Your task to perform on an android device: turn off wifi Image 0: 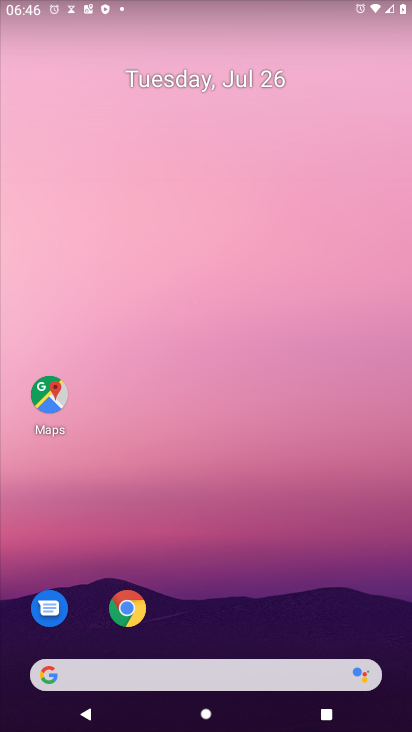
Step 0: press home button
Your task to perform on an android device: turn off wifi Image 1: 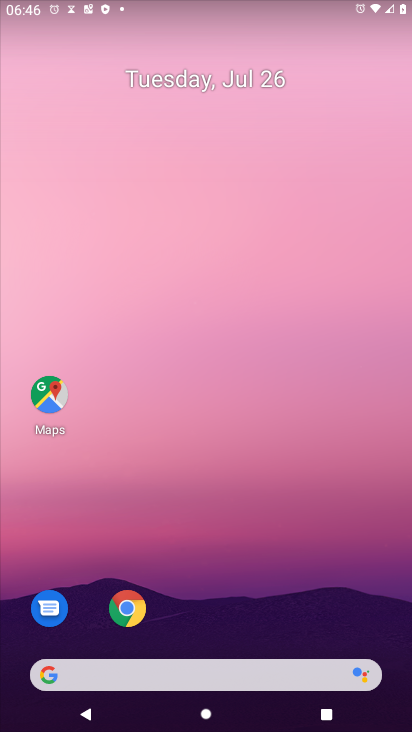
Step 1: drag from (219, 2) to (242, 612)
Your task to perform on an android device: turn off wifi Image 2: 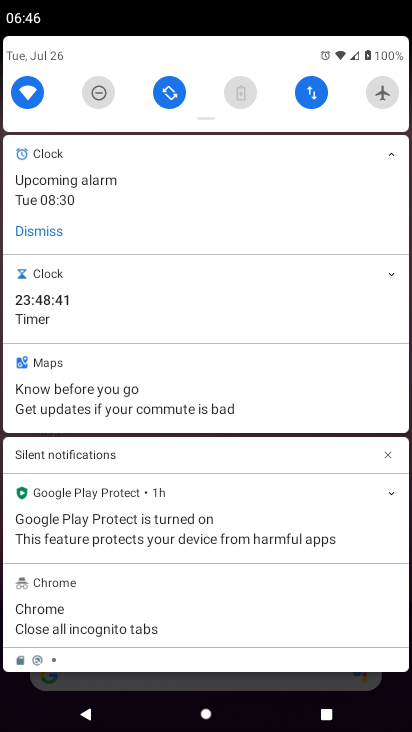
Step 2: click (35, 93)
Your task to perform on an android device: turn off wifi Image 3: 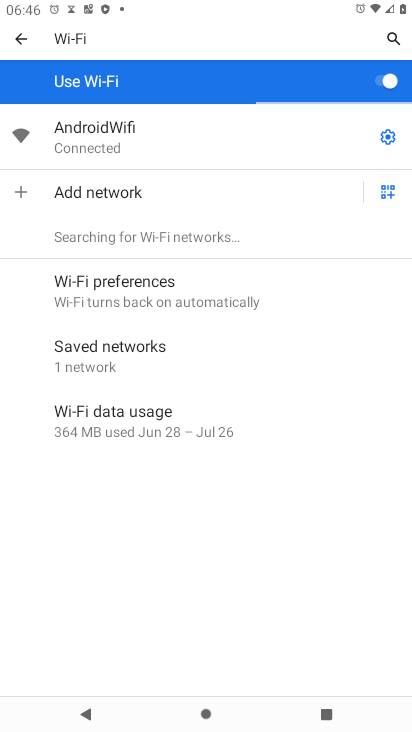
Step 3: click (389, 81)
Your task to perform on an android device: turn off wifi Image 4: 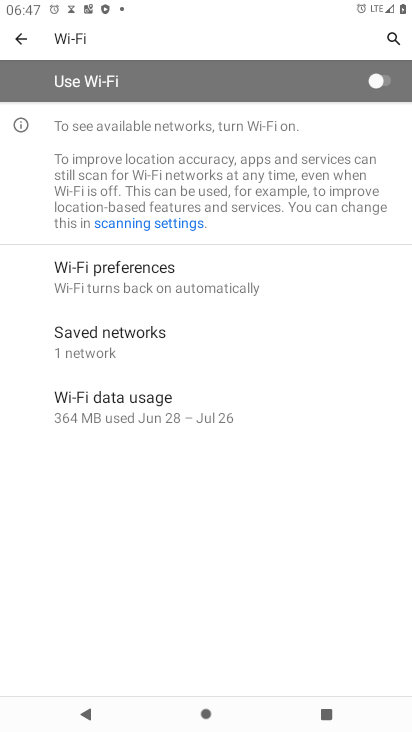
Step 4: task complete